Your task to perform on an android device: Go to CNN.com Image 0: 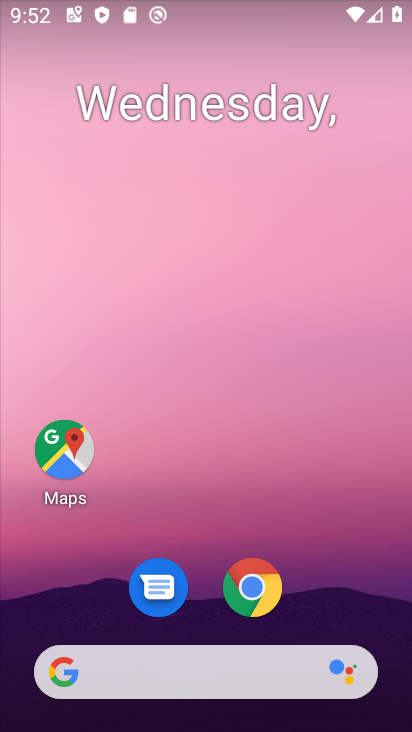
Step 0: press home button
Your task to perform on an android device: Go to CNN.com Image 1: 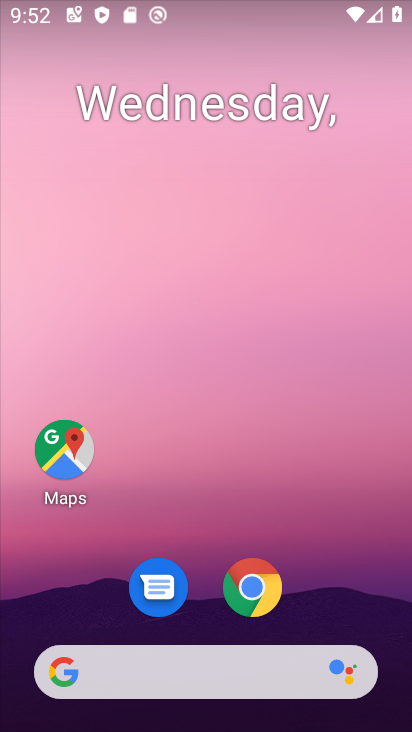
Step 1: click (61, 673)
Your task to perform on an android device: Go to CNN.com Image 2: 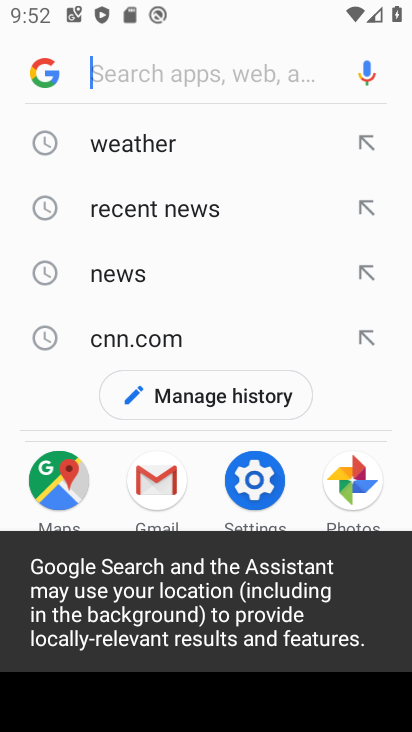
Step 2: click (158, 347)
Your task to perform on an android device: Go to CNN.com Image 3: 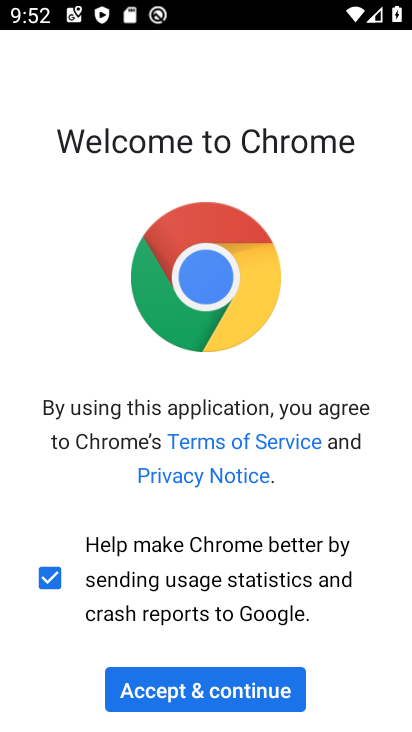
Step 3: click (210, 682)
Your task to perform on an android device: Go to CNN.com Image 4: 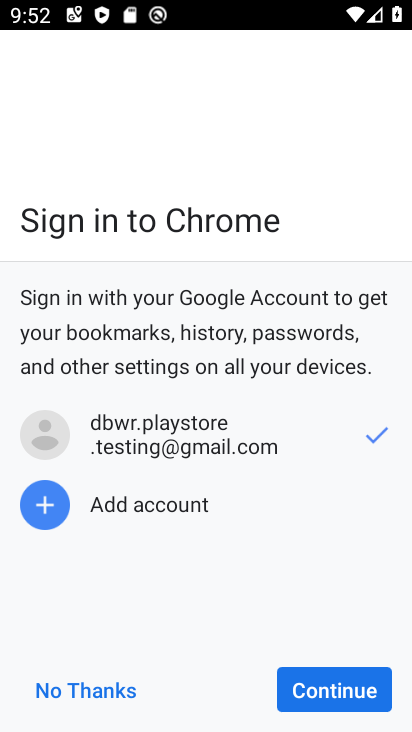
Step 4: click (301, 687)
Your task to perform on an android device: Go to CNN.com Image 5: 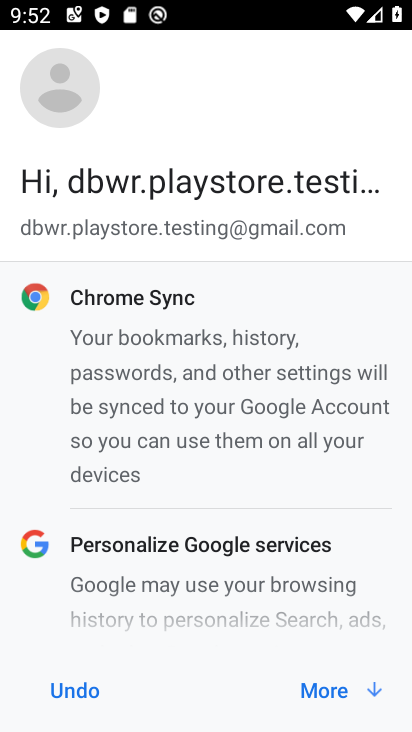
Step 5: click (319, 698)
Your task to perform on an android device: Go to CNN.com Image 6: 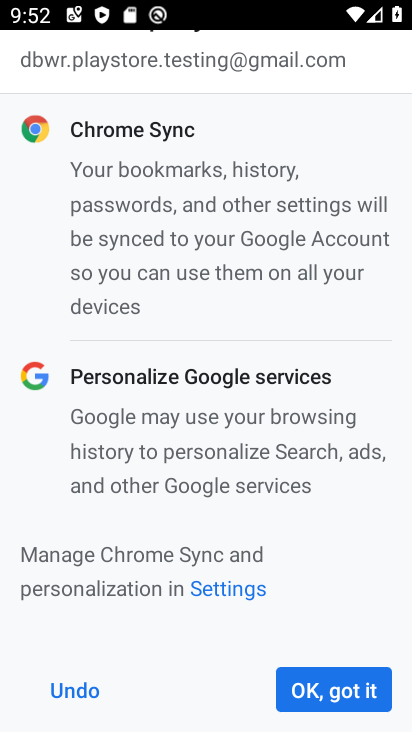
Step 6: click (319, 698)
Your task to perform on an android device: Go to CNN.com Image 7: 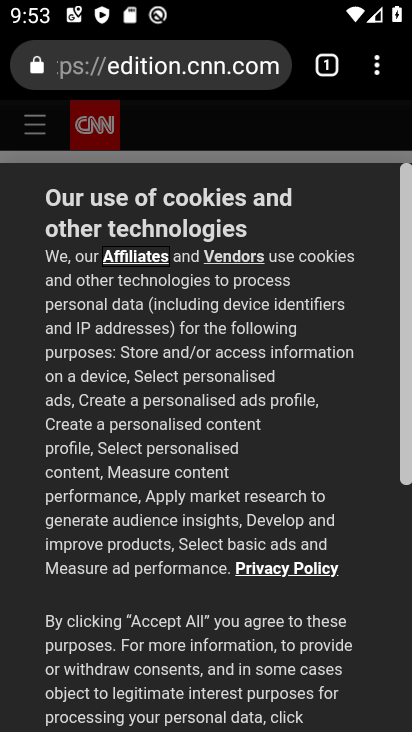
Step 7: task complete